Your task to perform on an android device: turn off location history Image 0: 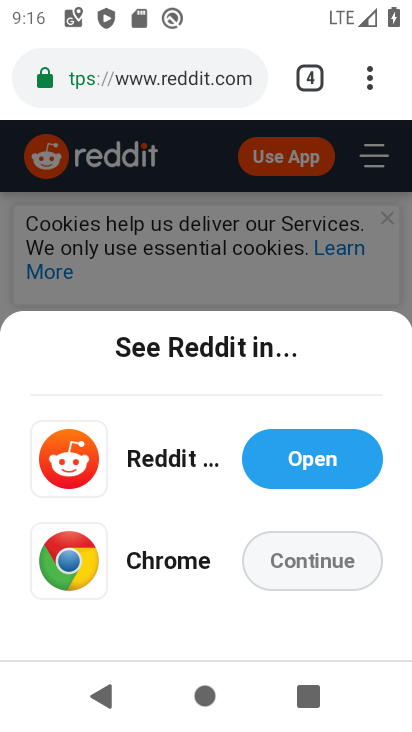
Step 0: press back button
Your task to perform on an android device: turn off location history Image 1: 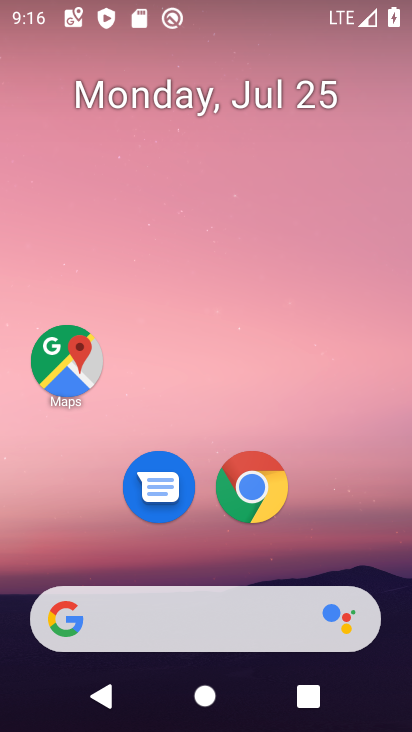
Step 1: drag from (85, 533) to (197, 18)
Your task to perform on an android device: turn off location history Image 2: 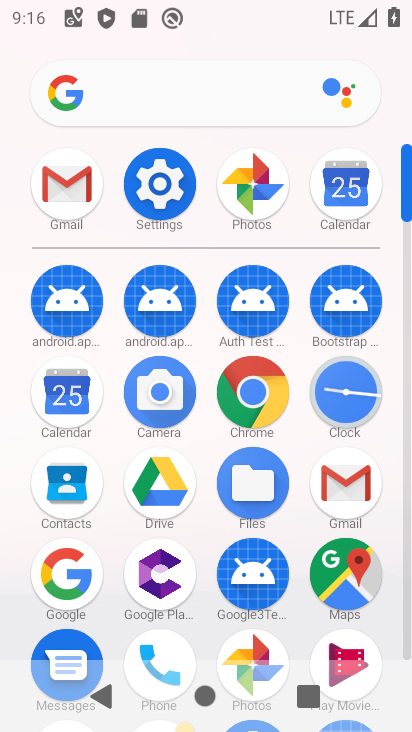
Step 2: click (168, 179)
Your task to perform on an android device: turn off location history Image 3: 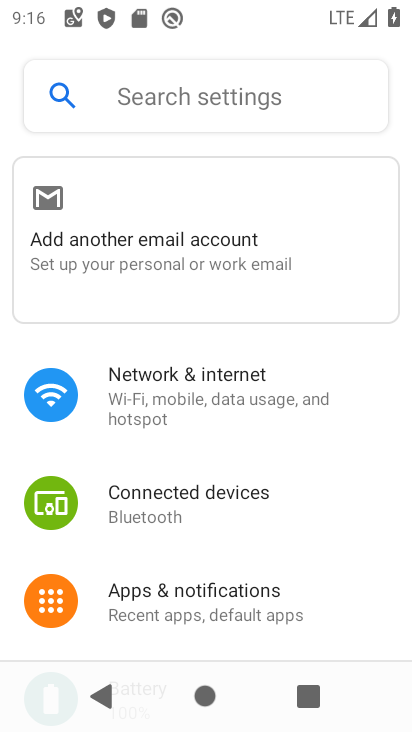
Step 3: drag from (208, 557) to (281, 59)
Your task to perform on an android device: turn off location history Image 4: 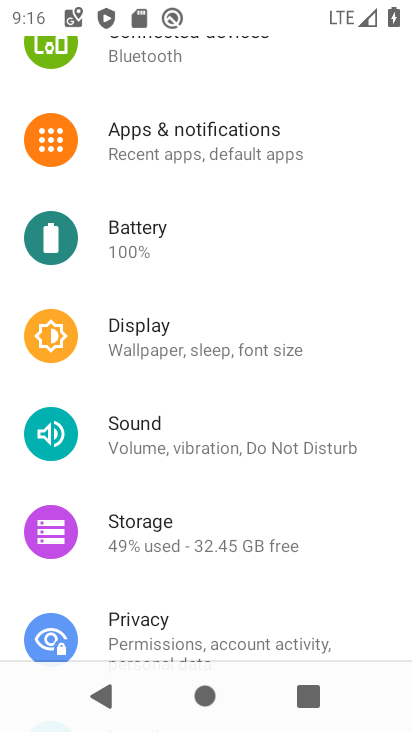
Step 4: drag from (145, 565) to (231, 104)
Your task to perform on an android device: turn off location history Image 5: 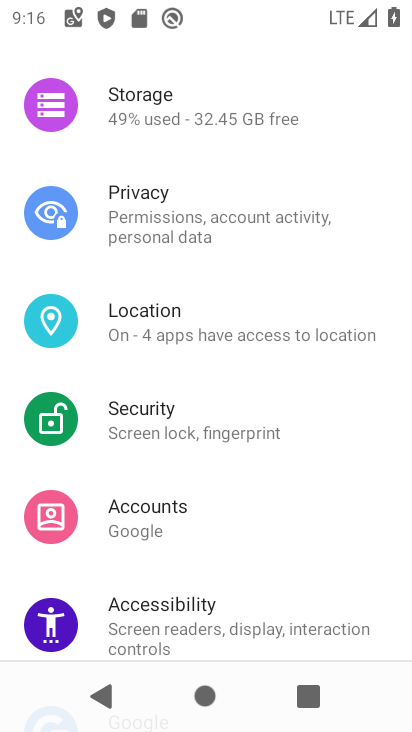
Step 5: click (171, 317)
Your task to perform on an android device: turn off location history Image 6: 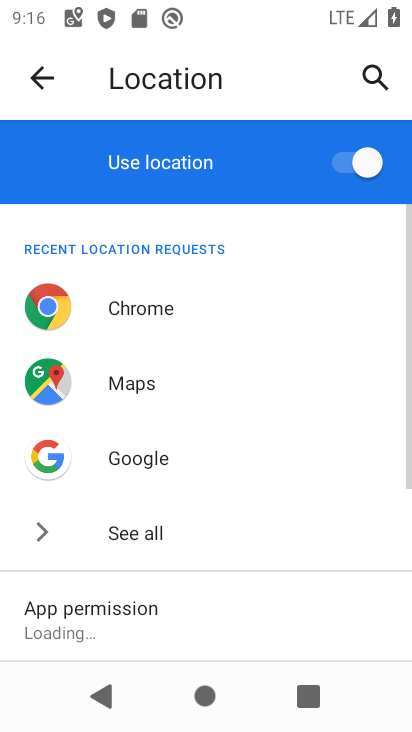
Step 6: drag from (220, 612) to (282, 21)
Your task to perform on an android device: turn off location history Image 7: 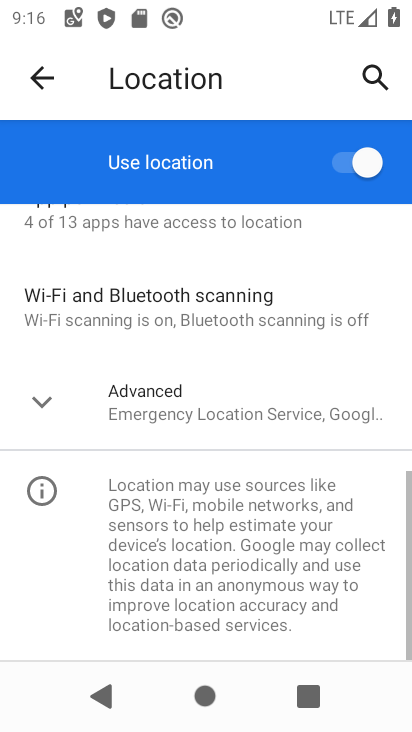
Step 7: click (121, 398)
Your task to perform on an android device: turn off location history Image 8: 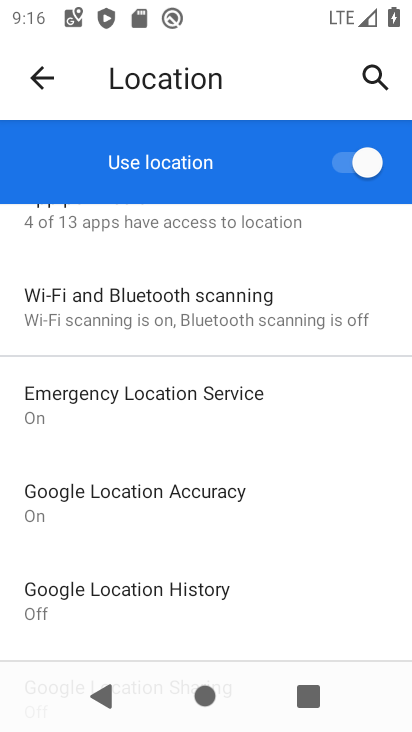
Step 8: click (133, 609)
Your task to perform on an android device: turn off location history Image 9: 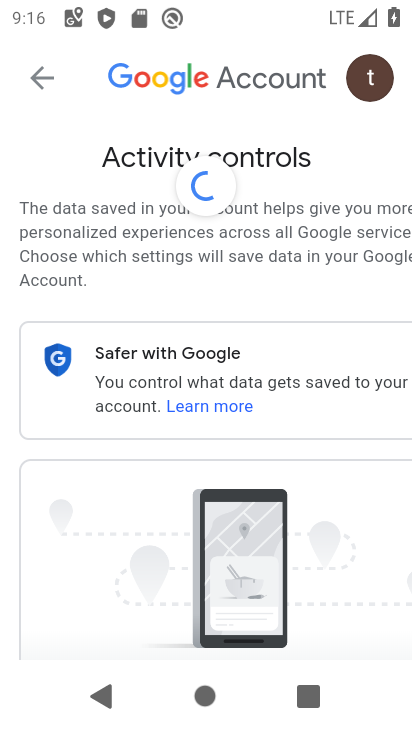
Step 9: task complete